Your task to perform on an android device: Is it going to rain today? Image 0: 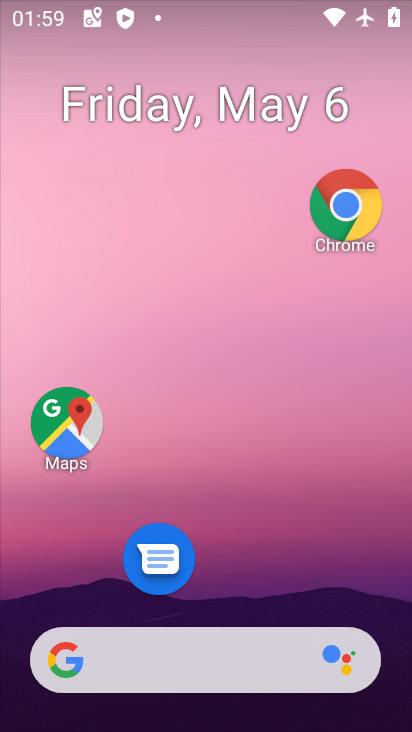
Step 0: click (69, 663)
Your task to perform on an android device: Is it going to rain today? Image 1: 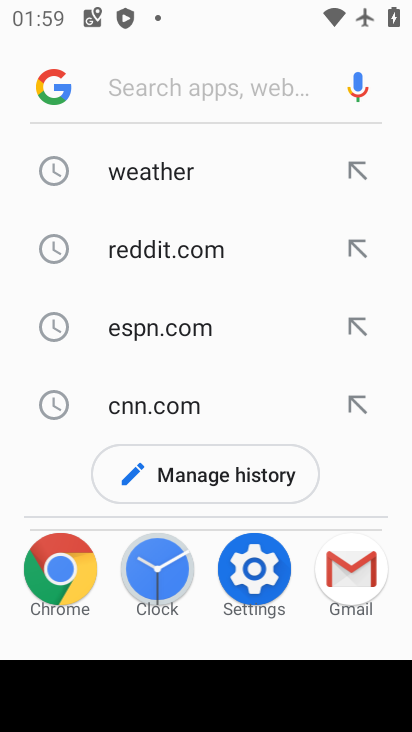
Step 1: click (183, 166)
Your task to perform on an android device: Is it going to rain today? Image 2: 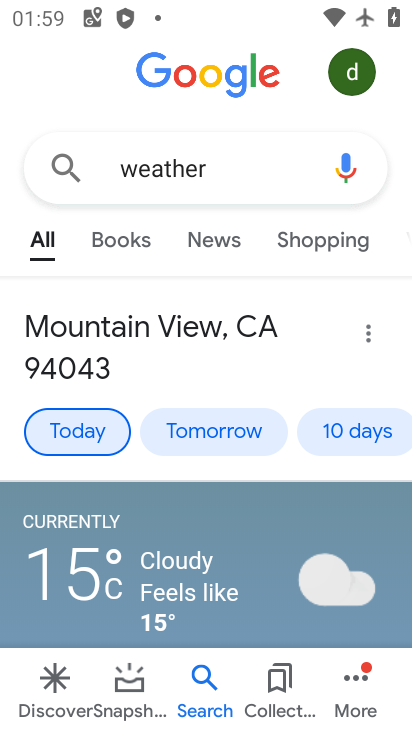
Step 2: task complete